Your task to perform on an android device: Open the calendar and show me this week's events? Image 0: 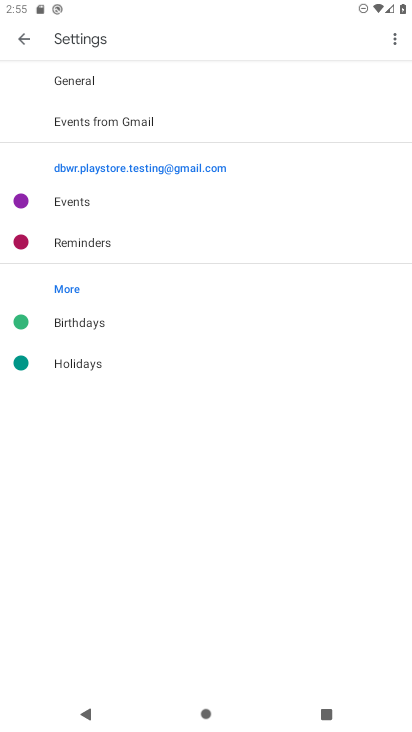
Step 0: press home button
Your task to perform on an android device: Open the calendar and show me this week's events? Image 1: 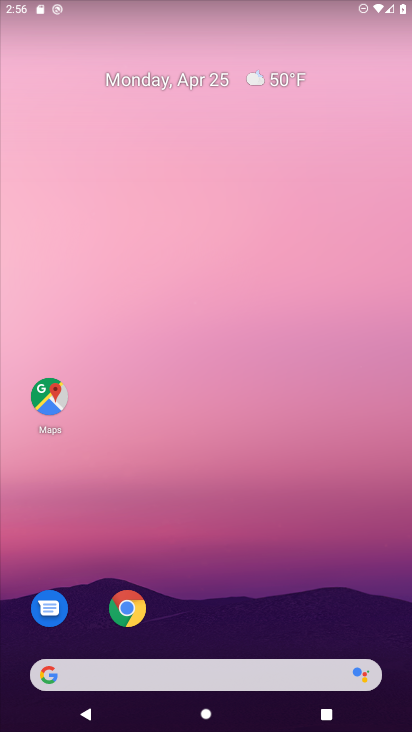
Step 1: drag from (217, 623) to (222, 229)
Your task to perform on an android device: Open the calendar and show me this week's events? Image 2: 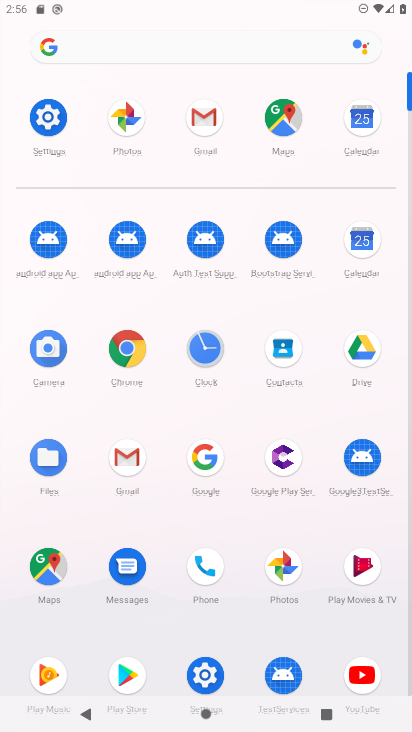
Step 2: click (357, 246)
Your task to perform on an android device: Open the calendar and show me this week's events? Image 3: 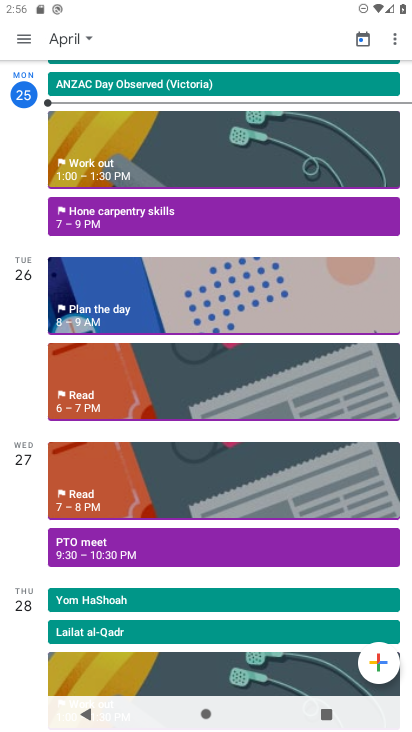
Step 3: click (83, 38)
Your task to perform on an android device: Open the calendar and show me this week's events? Image 4: 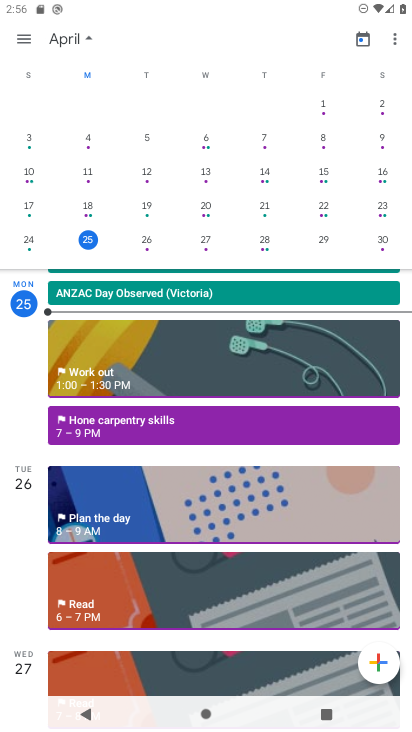
Step 4: click (146, 237)
Your task to perform on an android device: Open the calendar and show me this week's events? Image 5: 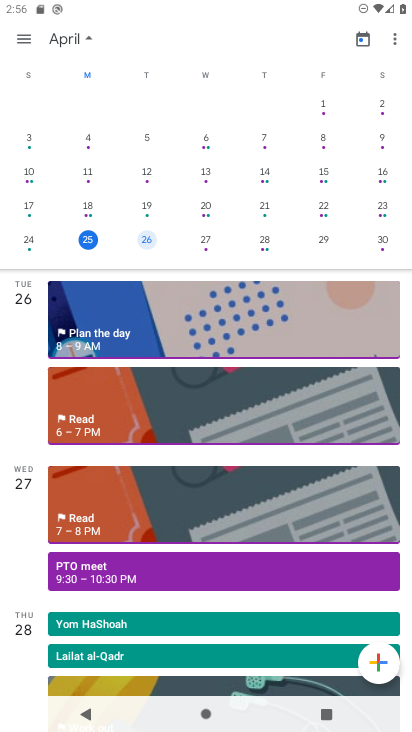
Step 5: click (248, 251)
Your task to perform on an android device: Open the calendar and show me this week's events? Image 6: 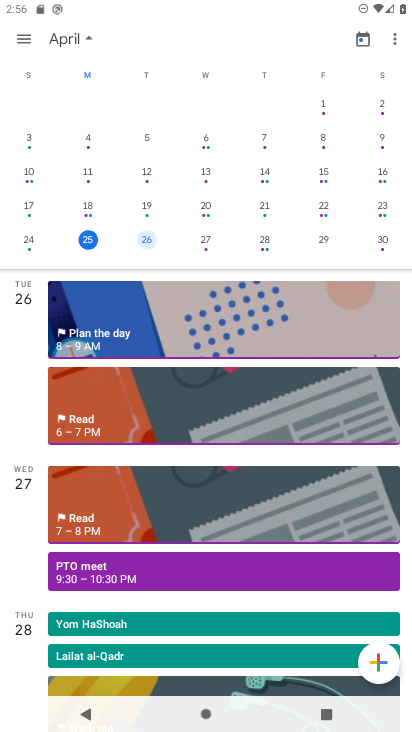
Step 6: click (258, 247)
Your task to perform on an android device: Open the calendar and show me this week's events? Image 7: 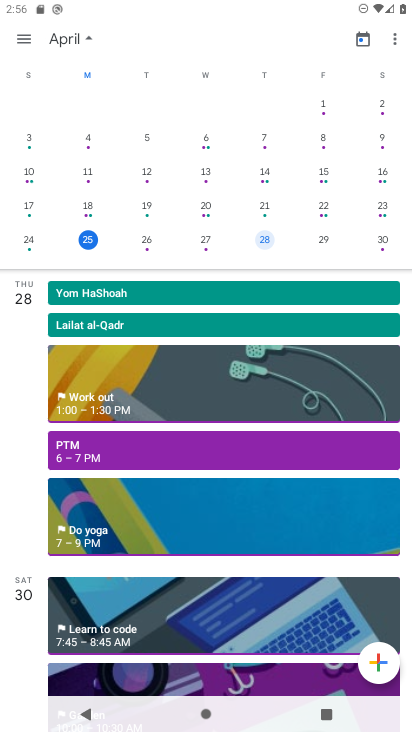
Step 7: click (164, 367)
Your task to perform on an android device: Open the calendar and show me this week's events? Image 8: 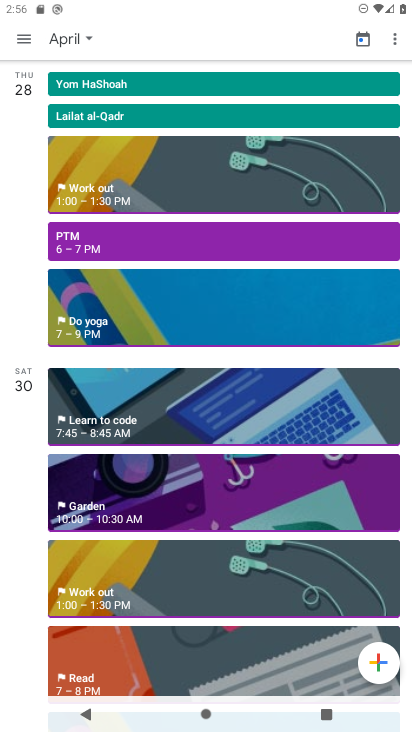
Step 8: task complete